Your task to perform on an android device: toggle improve location accuracy Image 0: 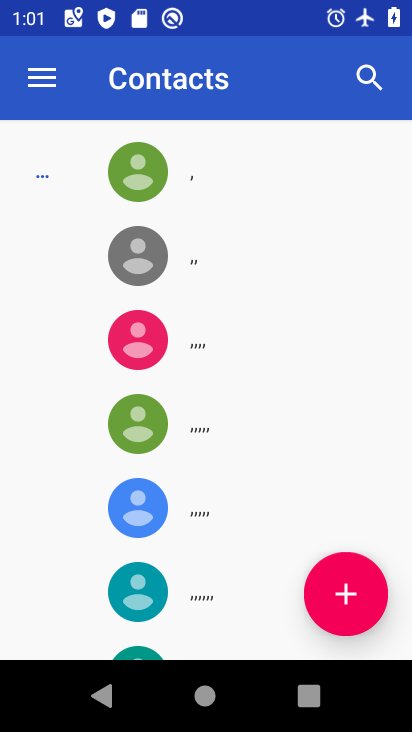
Step 0: press home button
Your task to perform on an android device: toggle improve location accuracy Image 1: 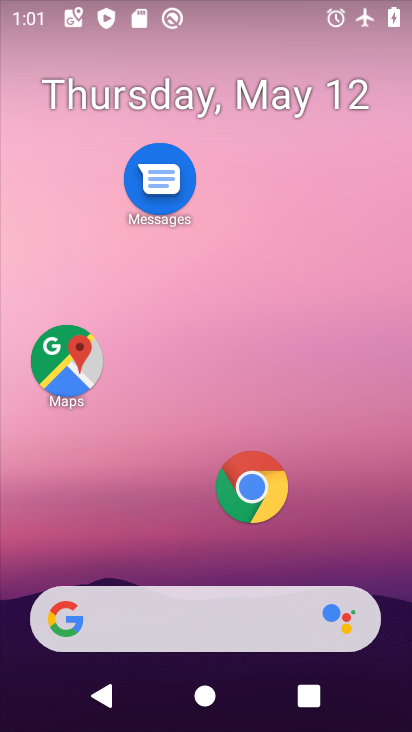
Step 1: drag from (201, 556) to (202, 186)
Your task to perform on an android device: toggle improve location accuracy Image 2: 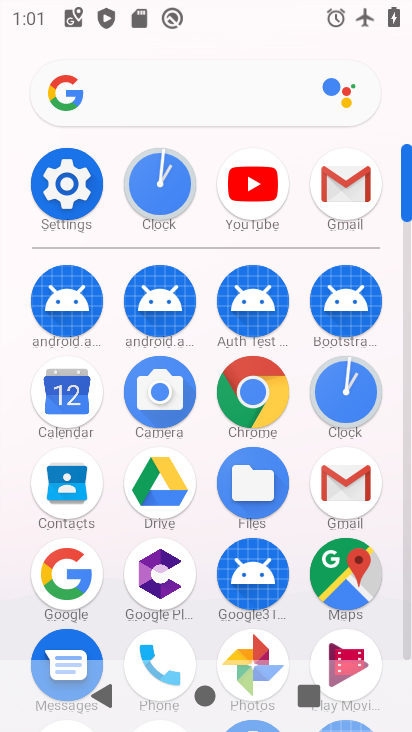
Step 2: click (71, 180)
Your task to perform on an android device: toggle improve location accuracy Image 3: 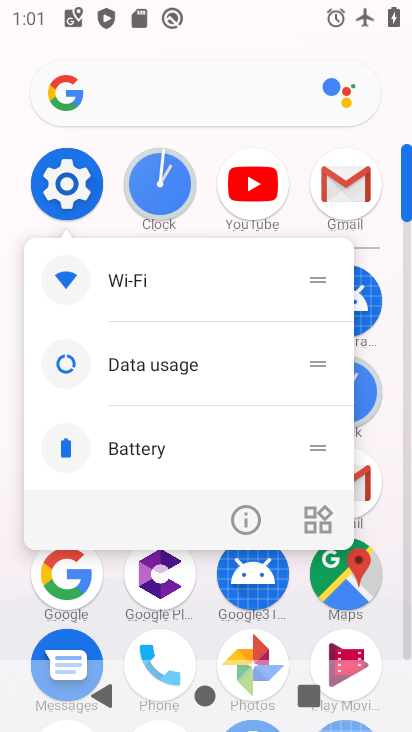
Step 3: click (61, 195)
Your task to perform on an android device: toggle improve location accuracy Image 4: 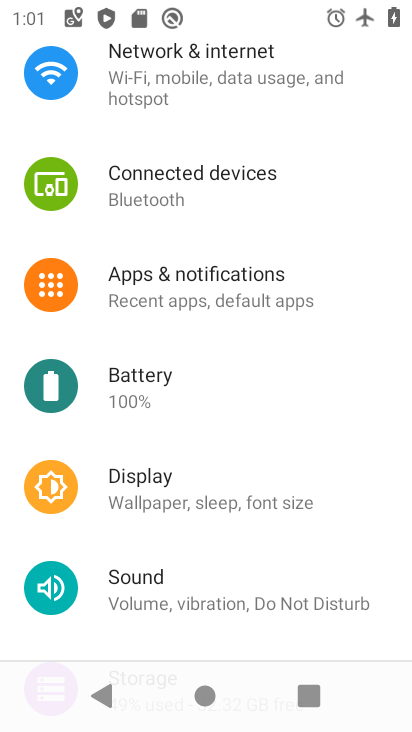
Step 4: drag from (221, 551) to (217, 315)
Your task to perform on an android device: toggle improve location accuracy Image 5: 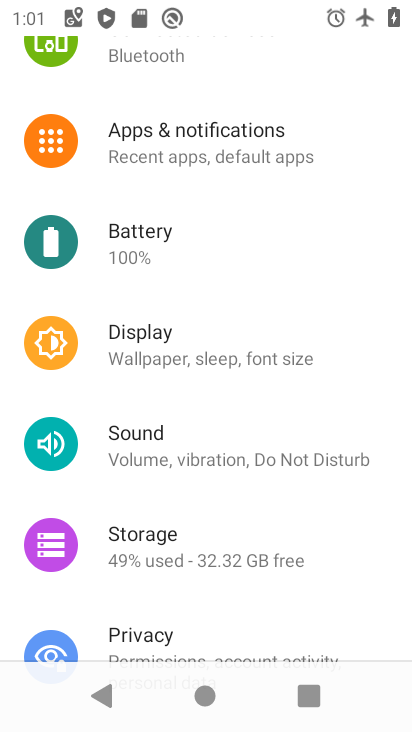
Step 5: drag from (210, 574) to (211, 320)
Your task to perform on an android device: toggle improve location accuracy Image 6: 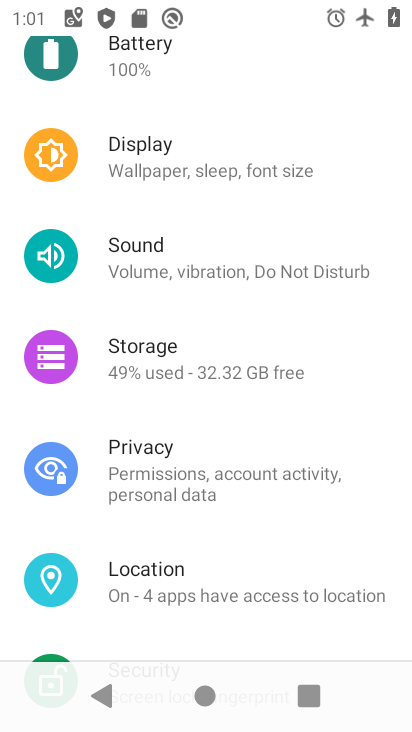
Step 6: click (178, 586)
Your task to perform on an android device: toggle improve location accuracy Image 7: 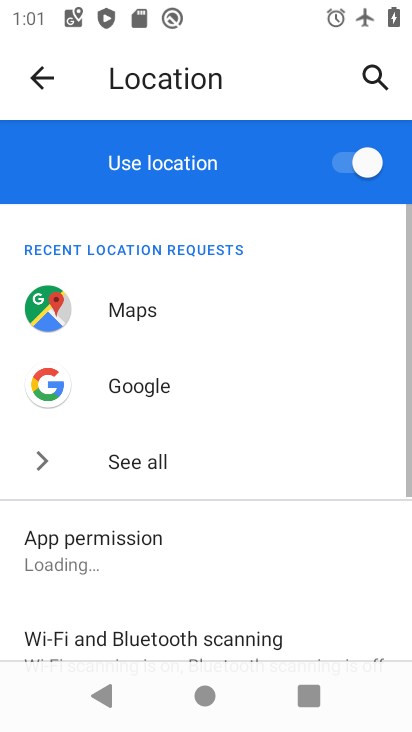
Step 7: drag from (203, 568) to (213, 329)
Your task to perform on an android device: toggle improve location accuracy Image 8: 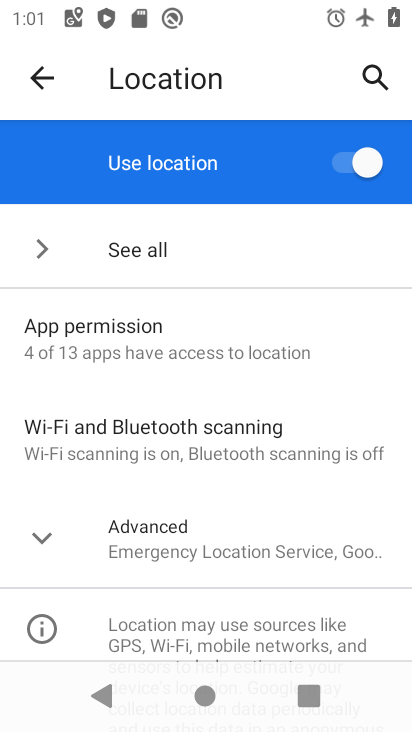
Step 8: click (157, 554)
Your task to perform on an android device: toggle improve location accuracy Image 9: 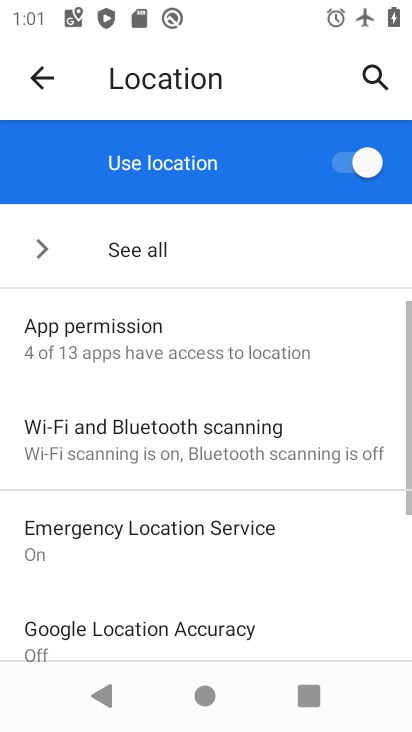
Step 9: drag from (162, 602) to (194, 390)
Your task to perform on an android device: toggle improve location accuracy Image 10: 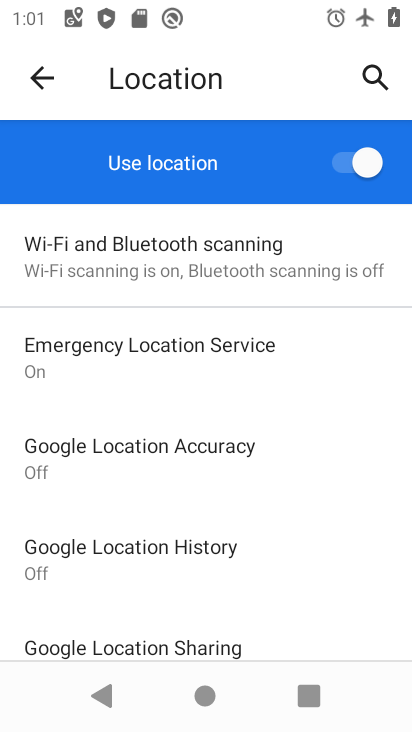
Step 10: click (195, 451)
Your task to perform on an android device: toggle improve location accuracy Image 11: 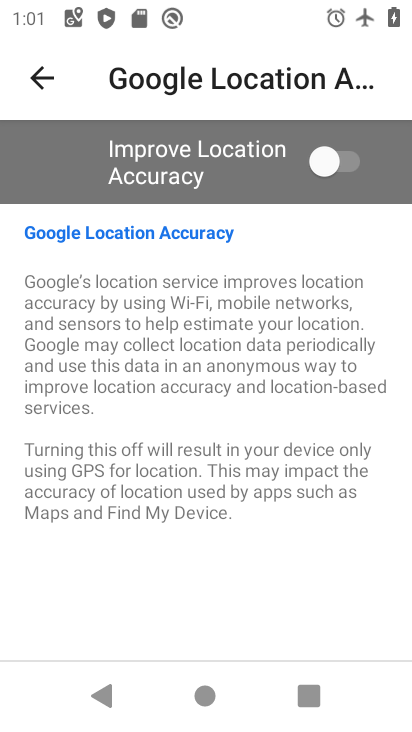
Step 11: click (366, 159)
Your task to perform on an android device: toggle improve location accuracy Image 12: 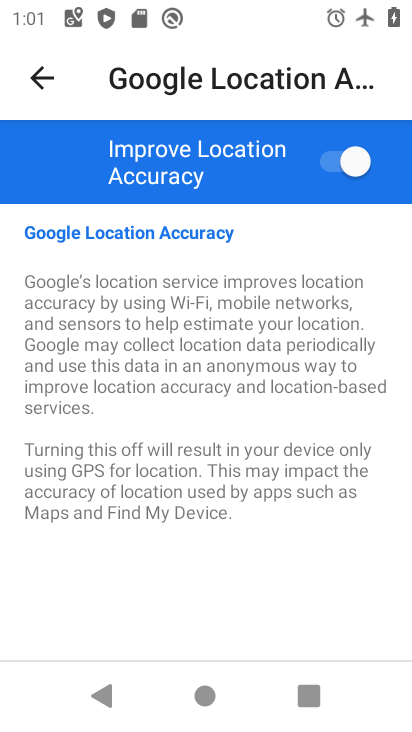
Step 12: task complete